Your task to perform on an android device: Open Youtube and go to the subscriptions tab Image 0: 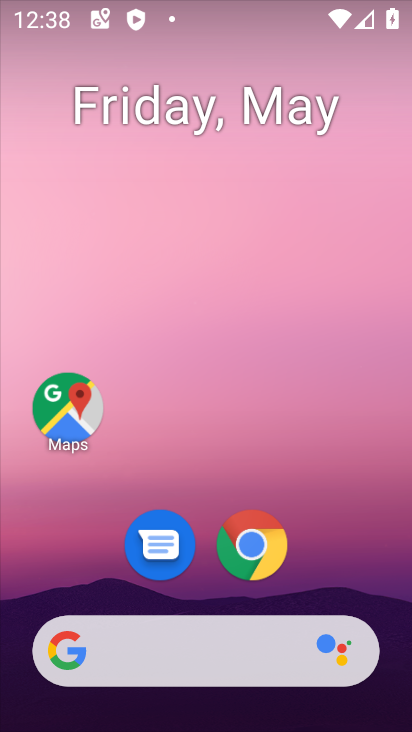
Step 0: drag from (365, 549) to (315, 635)
Your task to perform on an android device: Open Youtube and go to the subscriptions tab Image 1: 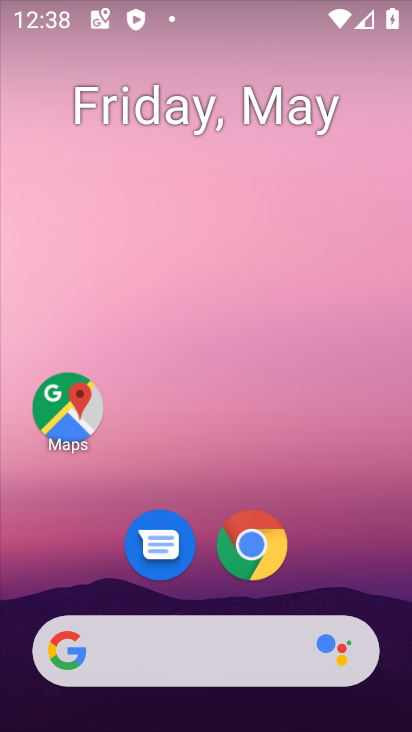
Step 1: drag from (334, 606) to (380, 168)
Your task to perform on an android device: Open Youtube and go to the subscriptions tab Image 2: 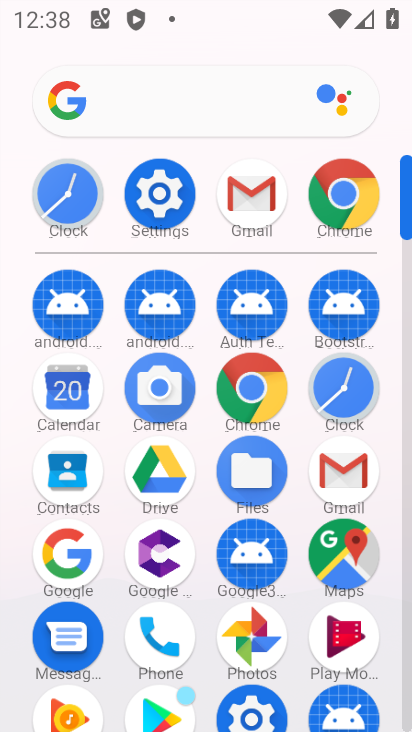
Step 2: drag from (281, 582) to (344, 143)
Your task to perform on an android device: Open Youtube and go to the subscriptions tab Image 3: 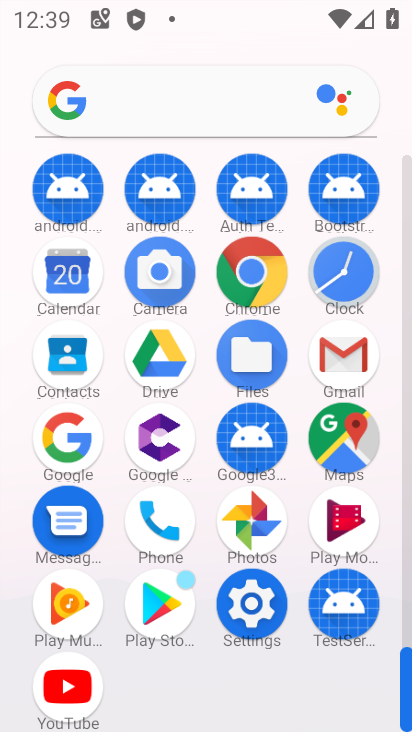
Step 3: click (62, 699)
Your task to perform on an android device: Open Youtube and go to the subscriptions tab Image 4: 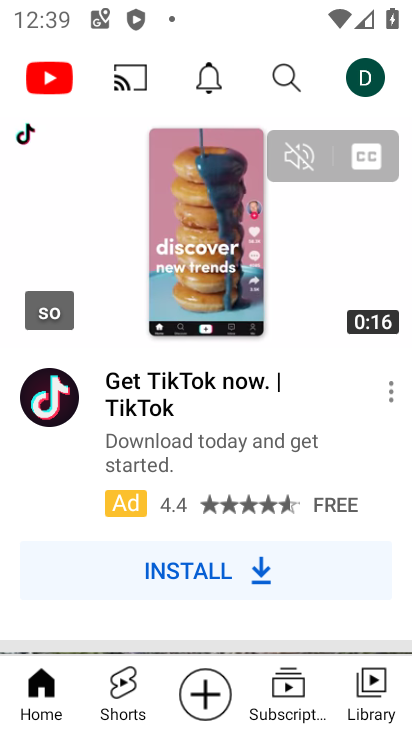
Step 4: click (294, 694)
Your task to perform on an android device: Open Youtube and go to the subscriptions tab Image 5: 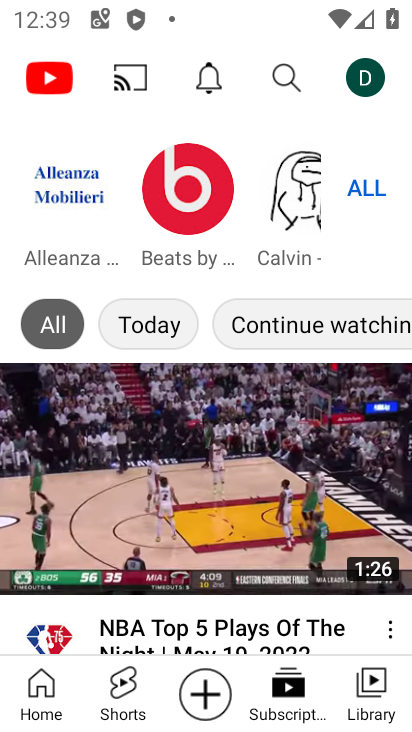
Step 5: task complete